Your task to perform on an android device: turn on wifi Image 0: 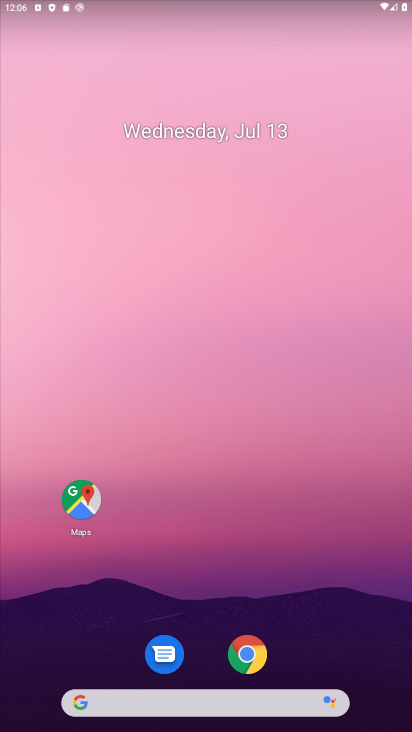
Step 0: drag from (315, 673) to (350, 43)
Your task to perform on an android device: turn on wifi Image 1: 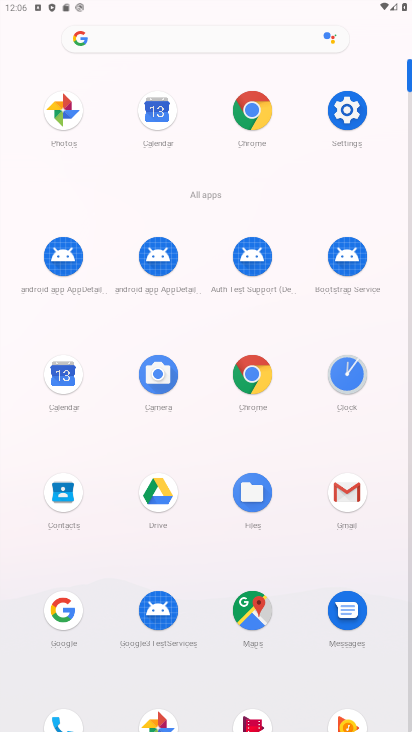
Step 1: click (346, 107)
Your task to perform on an android device: turn on wifi Image 2: 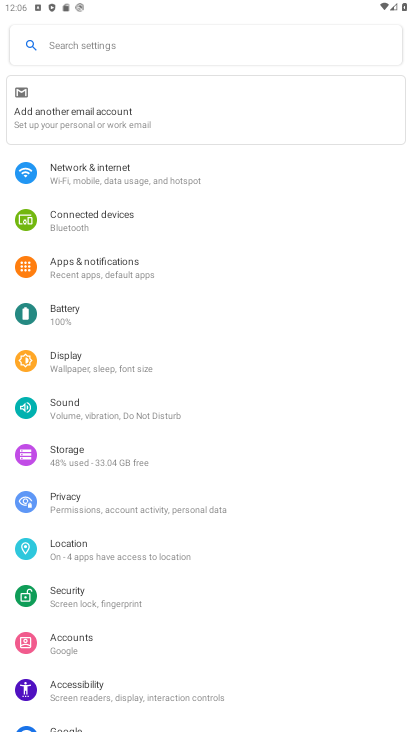
Step 2: click (123, 179)
Your task to perform on an android device: turn on wifi Image 3: 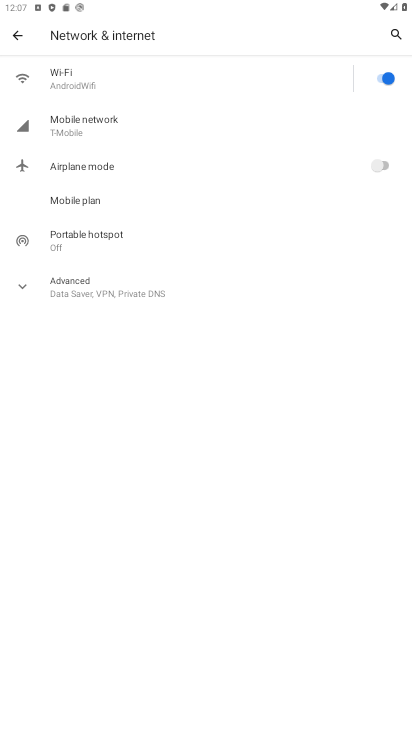
Step 3: task complete